Your task to perform on an android device: Open the calendar app, open the side menu, and click the "Day" option Image 0: 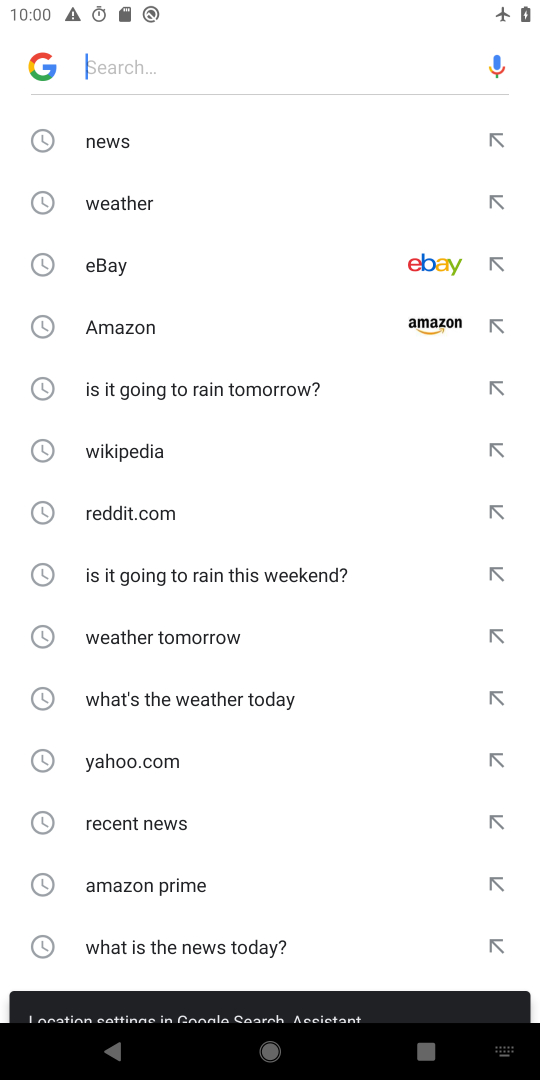
Step 0: press home button
Your task to perform on an android device: Open the calendar app, open the side menu, and click the "Day" option Image 1: 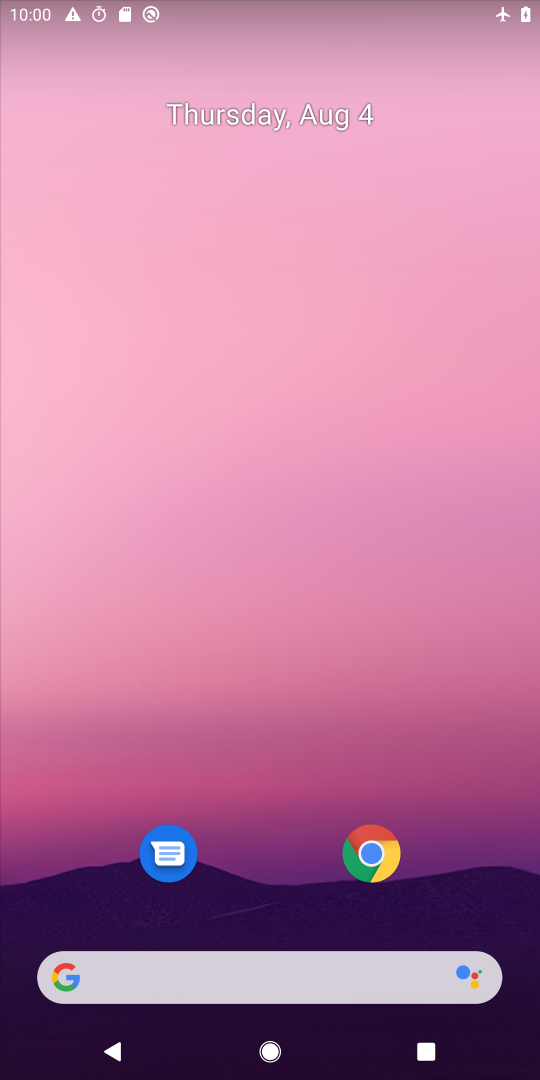
Step 1: drag from (247, 909) to (289, 144)
Your task to perform on an android device: Open the calendar app, open the side menu, and click the "Day" option Image 2: 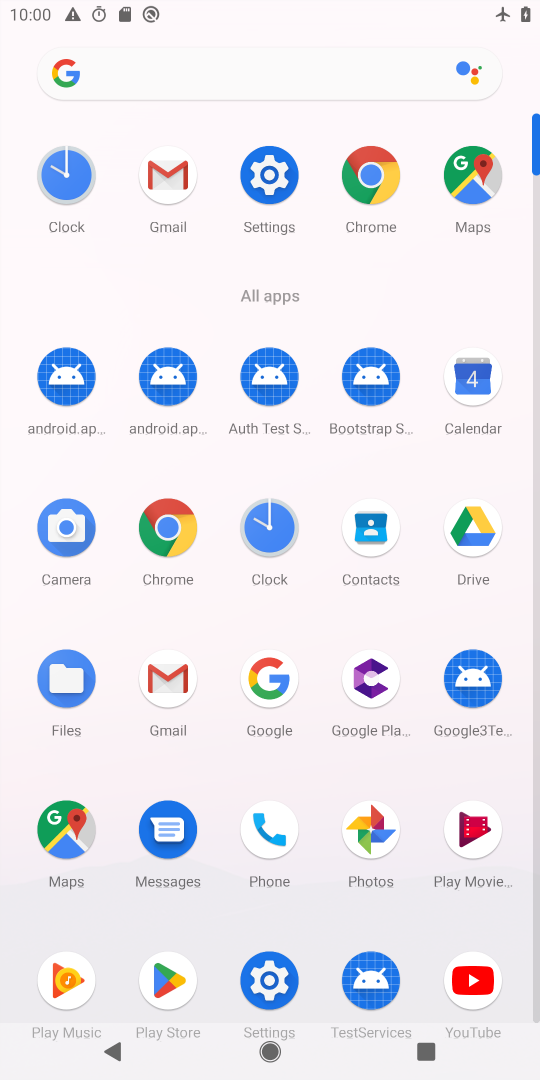
Step 2: click (465, 386)
Your task to perform on an android device: Open the calendar app, open the side menu, and click the "Day" option Image 3: 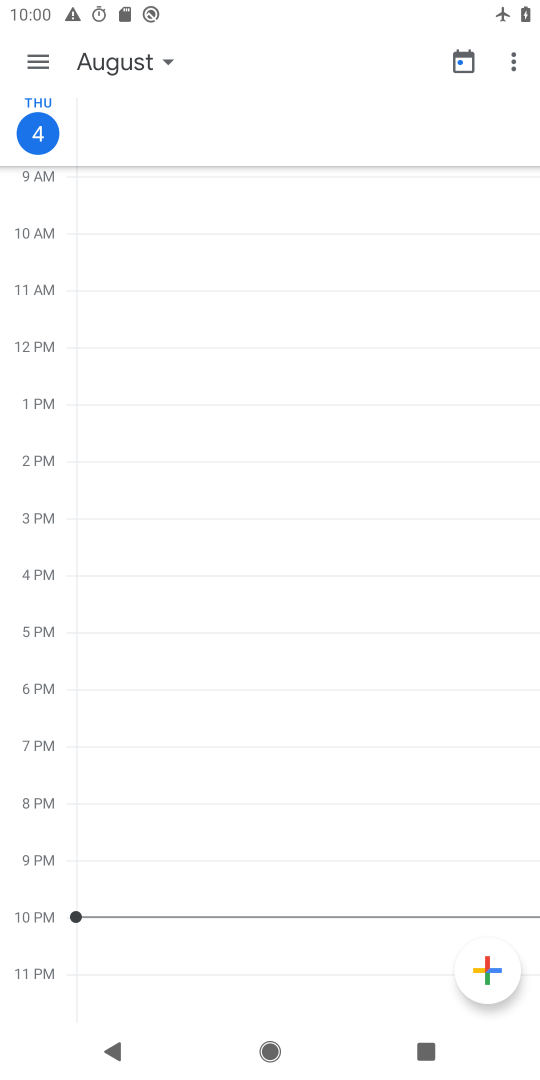
Step 3: click (42, 56)
Your task to perform on an android device: Open the calendar app, open the side menu, and click the "Day" option Image 4: 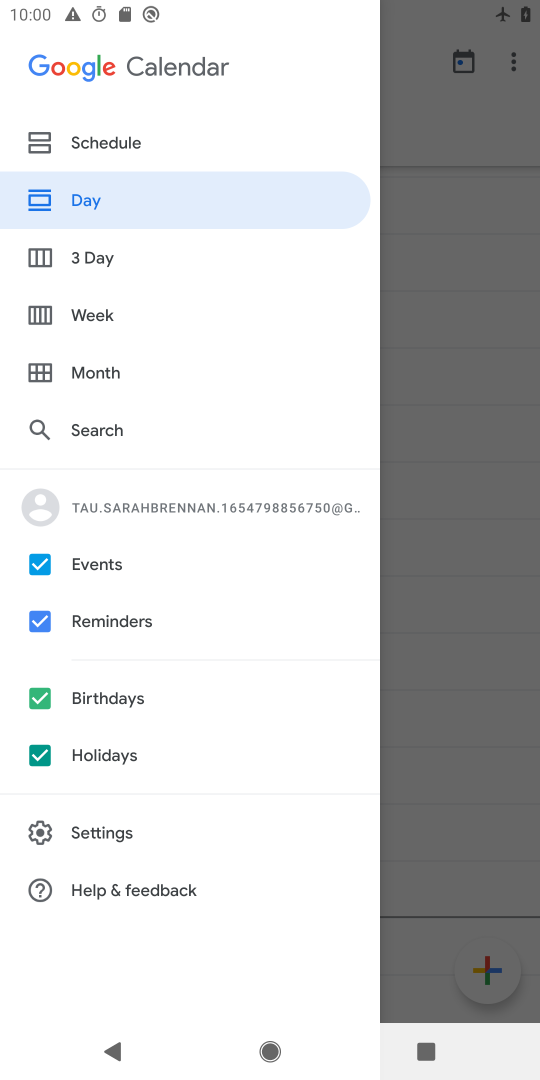
Step 4: task complete